Your task to perform on an android device: change text size in settings app Image 0: 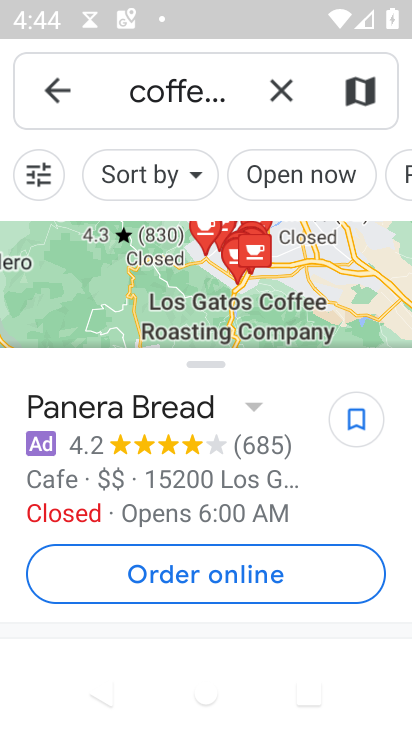
Step 0: press home button
Your task to perform on an android device: change text size in settings app Image 1: 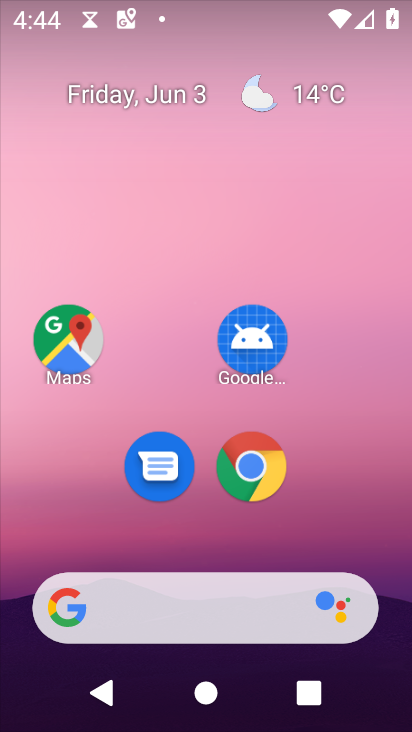
Step 1: drag from (326, 505) to (392, 102)
Your task to perform on an android device: change text size in settings app Image 2: 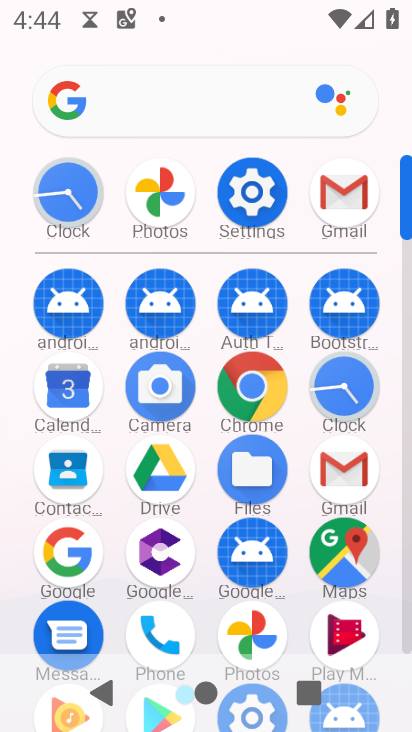
Step 2: click (239, 197)
Your task to perform on an android device: change text size in settings app Image 3: 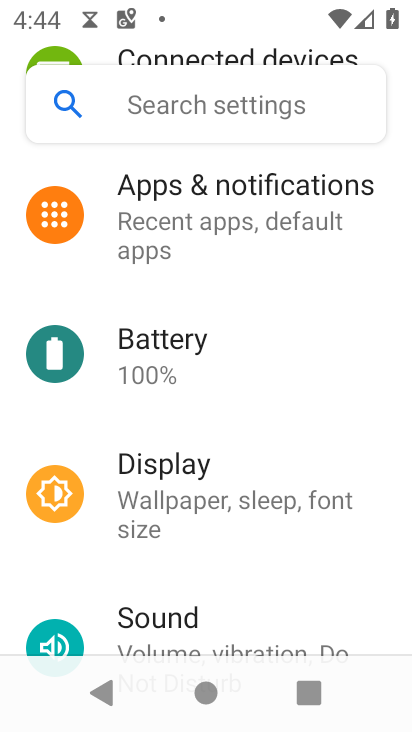
Step 3: click (226, 497)
Your task to perform on an android device: change text size in settings app Image 4: 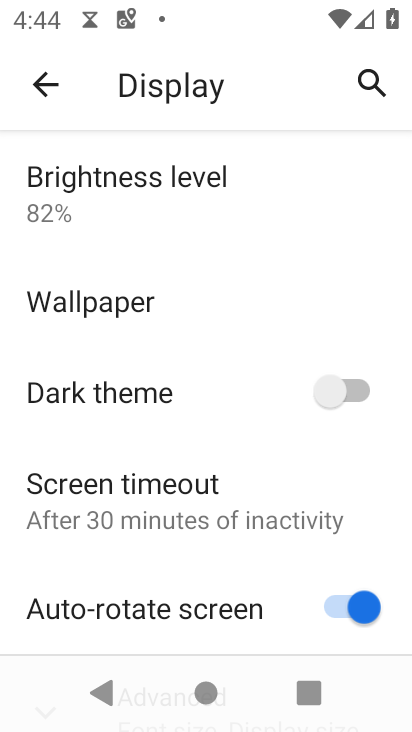
Step 4: drag from (137, 535) to (217, 142)
Your task to perform on an android device: change text size in settings app Image 5: 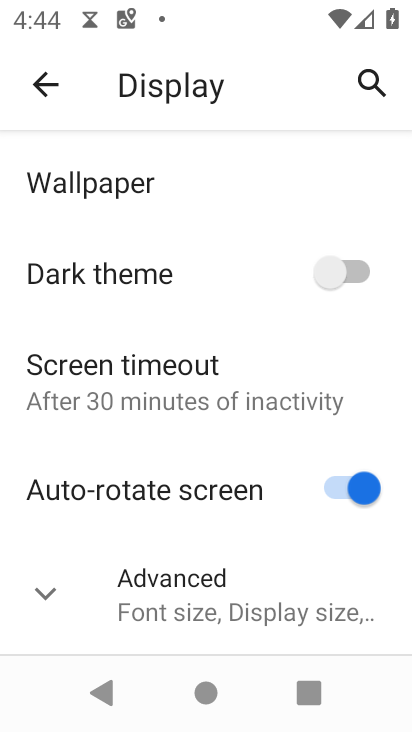
Step 5: click (158, 572)
Your task to perform on an android device: change text size in settings app Image 6: 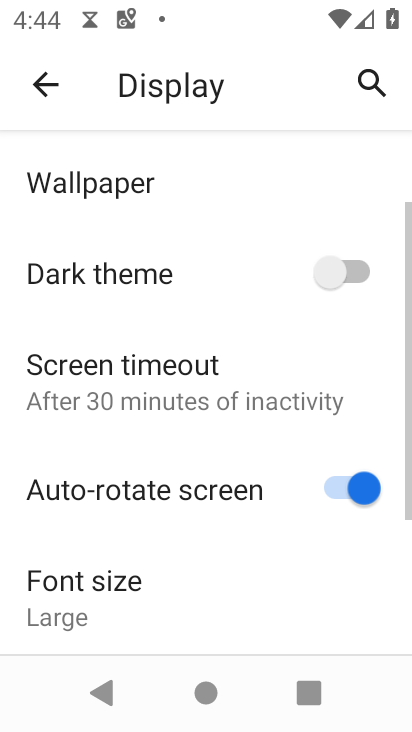
Step 6: drag from (170, 590) to (223, 247)
Your task to perform on an android device: change text size in settings app Image 7: 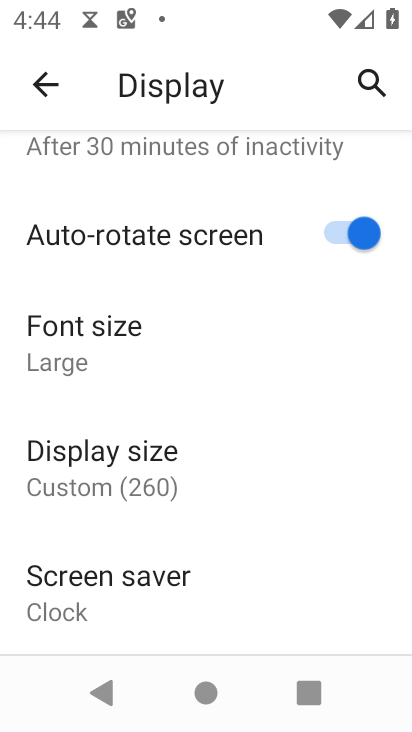
Step 7: click (168, 342)
Your task to perform on an android device: change text size in settings app Image 8: 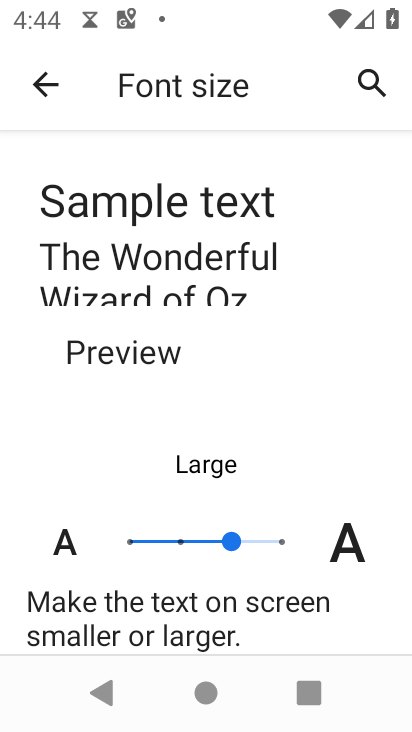
Step 8: click (170, 534)
Your task to perform on an android device: change text size in settings app Image 9: 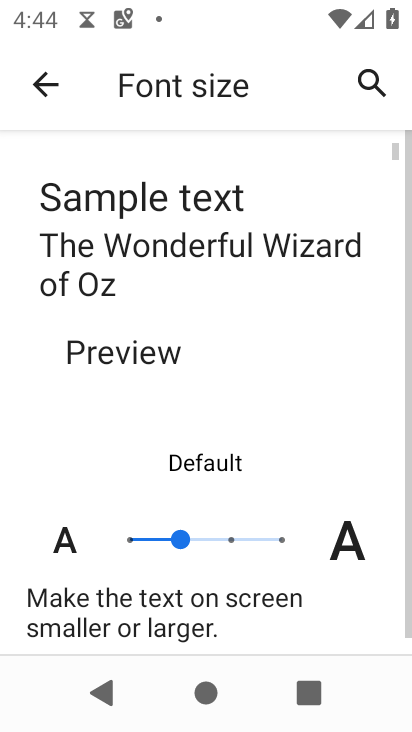
Step 9: task complete